Your task to perform on an android device: set the stopwatch Image 0: 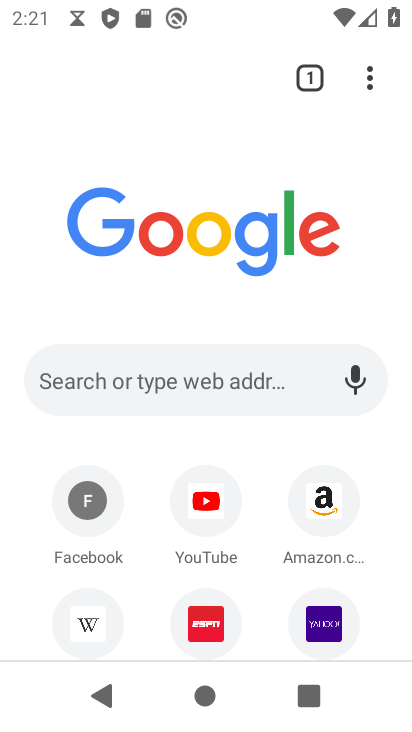
Step 0: press back button
Your task to perform on an android device: set the stopwatch Image 1: 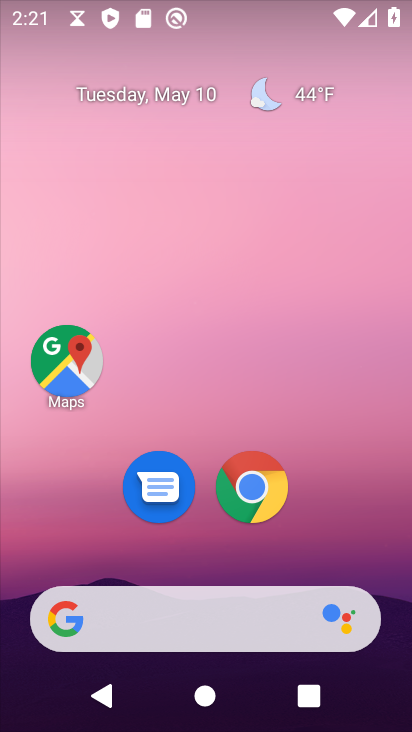
Step 1: drag from (169, 579) to (247, 102)
Your task to perform on an android device: set the stopwatch Image 2: 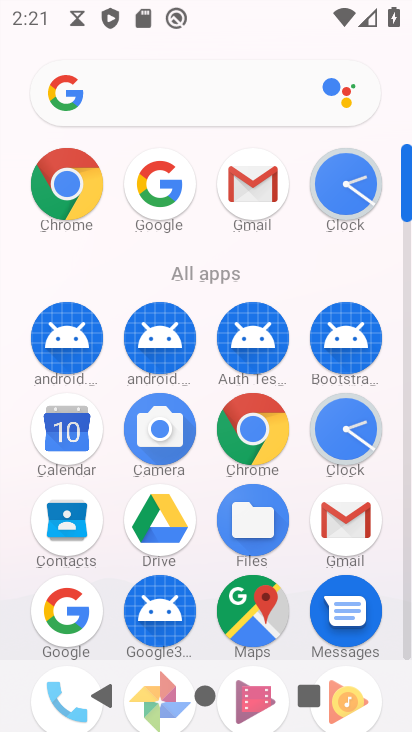
Step 2: click (342, 440)
Your task to perform on an android device: set the stopwatch Image 3: 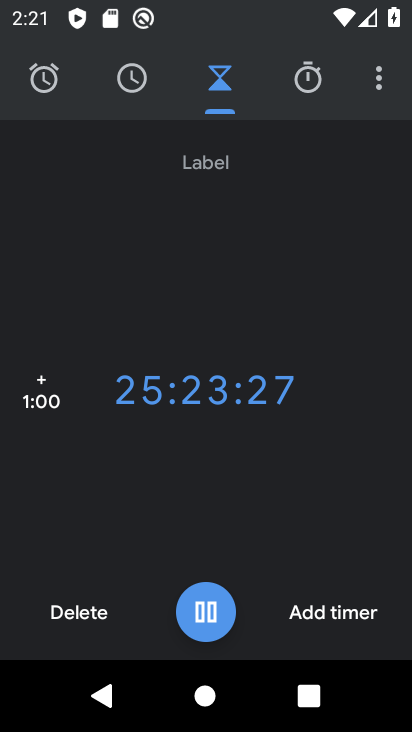
Step 3: click (315, 87)
Your task to perform on an android device: set the stopwatch Image 4: 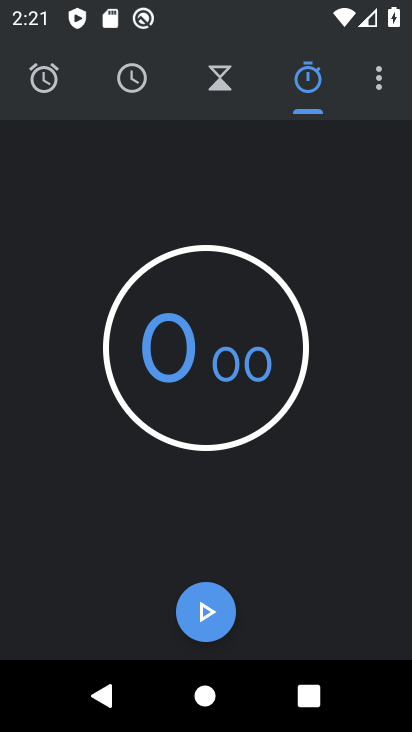
Step 4: click (184, 614)
Your task to perform on an android device: set the stopwatch Image 5: 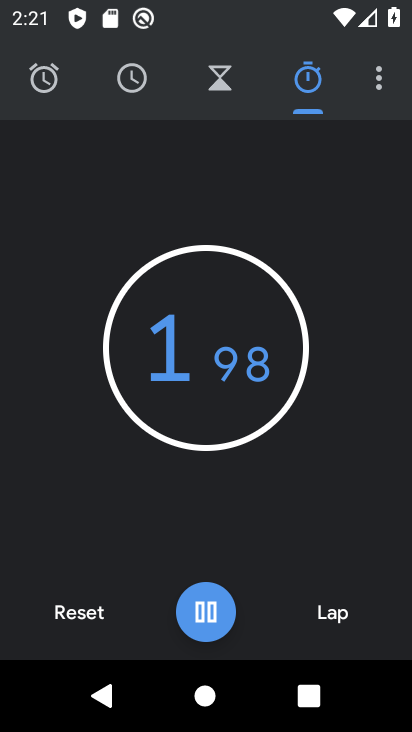
Step 5: task complete